Your task to perform on an android device: change your default location settings in chrome Image 0: 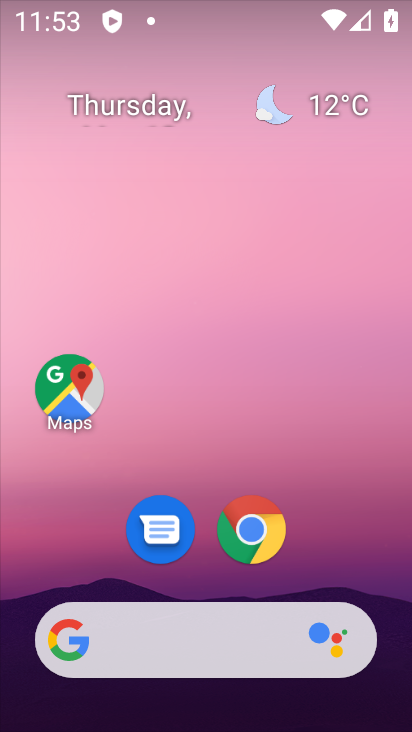
Step 0: drag from (320, 554) to (337, 215)
Your task to perform on an android device: change your default location settings in chrome Image 1: 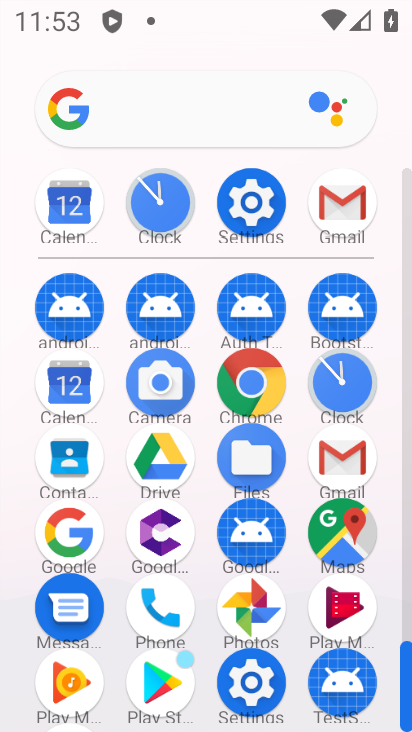
Step 1: click (236, 373)
Your task to perform on an android device: change your default location settings in chrome Image 2: 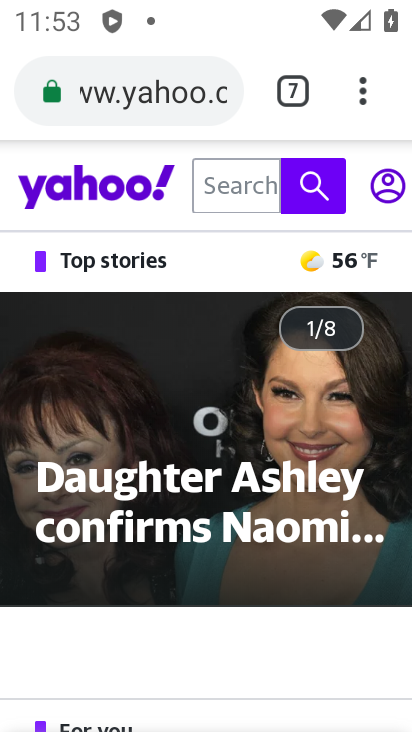
Step 2: click (351, 69)
Your task to perform on an android device: change your default location settings in chrome Image 3: 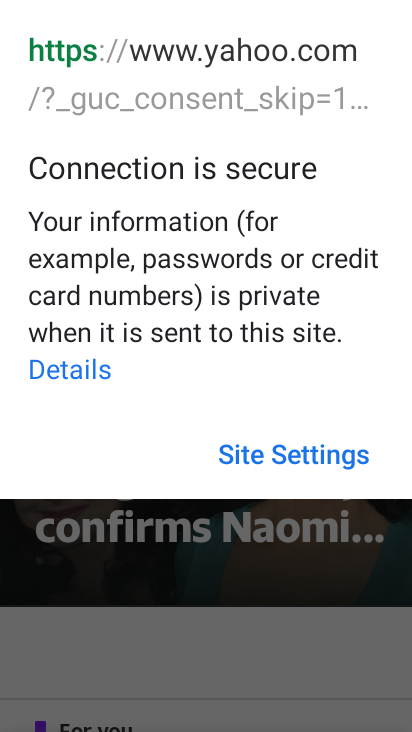
Step 3: press back button
Your task to perform on an android device: change your default location settings in chrome Image 4: 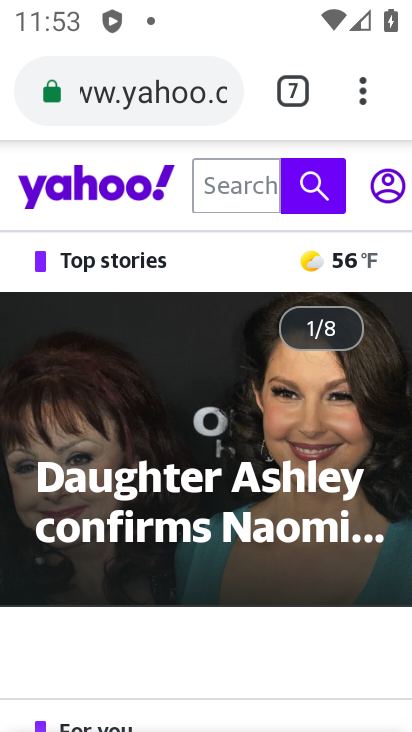
Step 4: click (336, 91)
Your task to perform on an android device: change your default location settings in chrome Image 5: 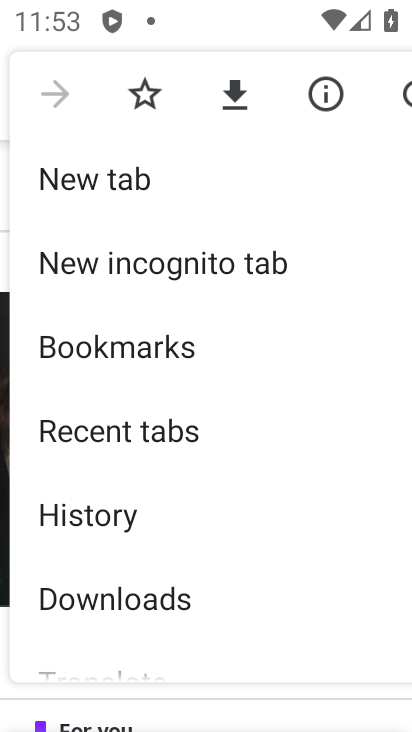
Step 5: drag from (220, 596) to (315, 223)
Your task to perform on an android device: change your default location settings in chrome Image 6: 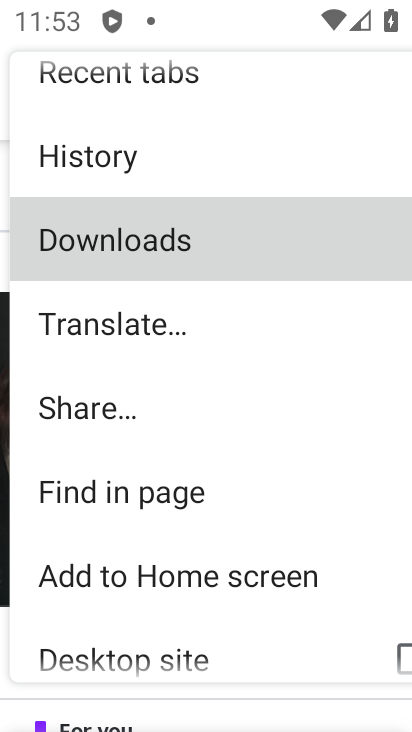
Step 6: drag from (230, 430) to (275, 153)
Your task to perform on an android device: change your default location settings in chrome Image 7: 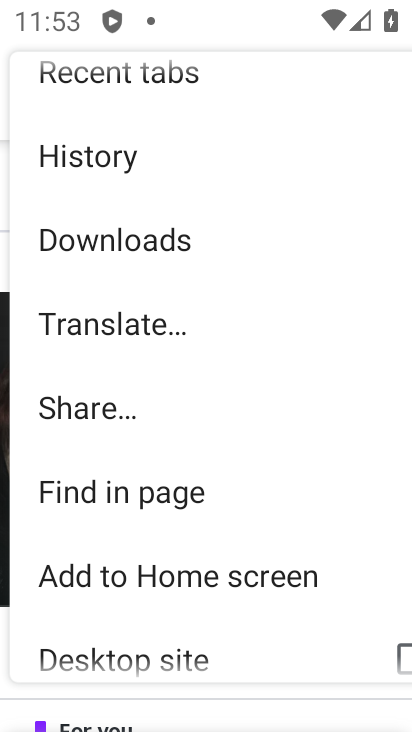
Step 7: drag from (280, 492) to (314, 83)
Your task to perform on an android device: change your default location settings in chrome Image 8: 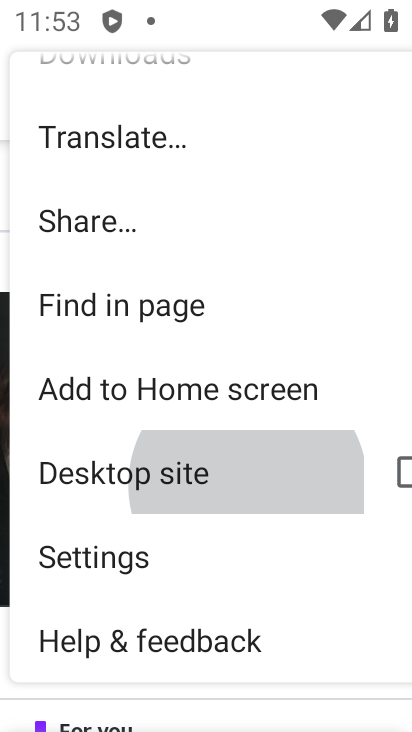
Step 8: drag from (208, 468) to (240, 243)
Your task to perform on an android device: change your default location settings in chrome Image 9: 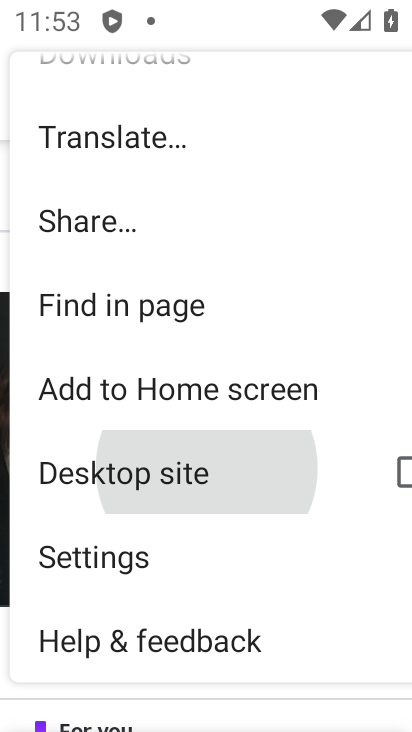
Step 9: drag from (181, 547) to (219, 251)
Your task to perform on an android device: change your default location settings in chrome Image 10: 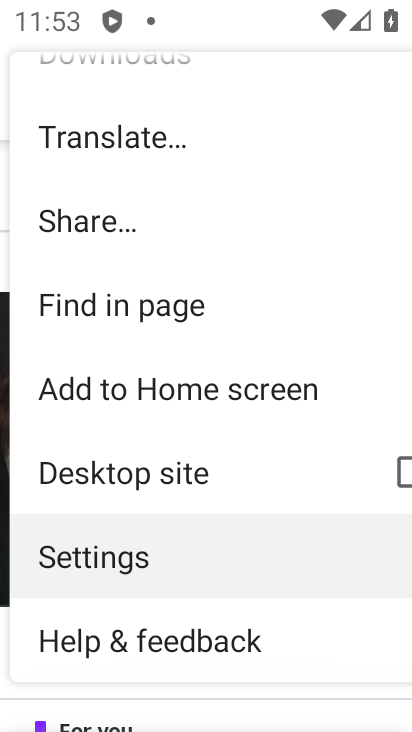
Step 10: click (151, 559)
Your task to perform on an android device: change your default location settings in chrome Image 11: 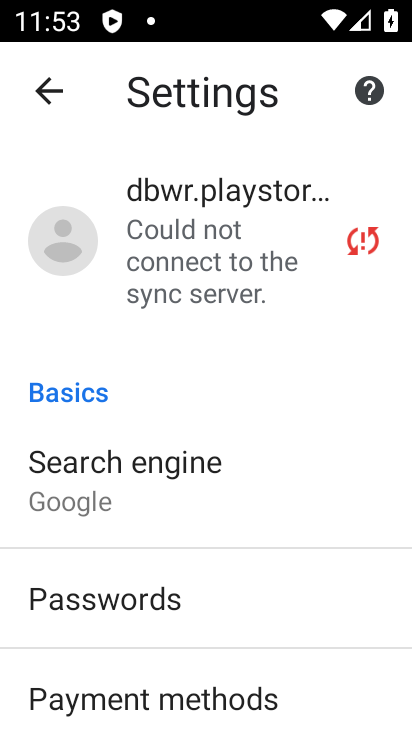
Step 11: drag from (224, 652) to (296, 238)
Your task to perform on an android device: change your default location settings in chrome Image 12: 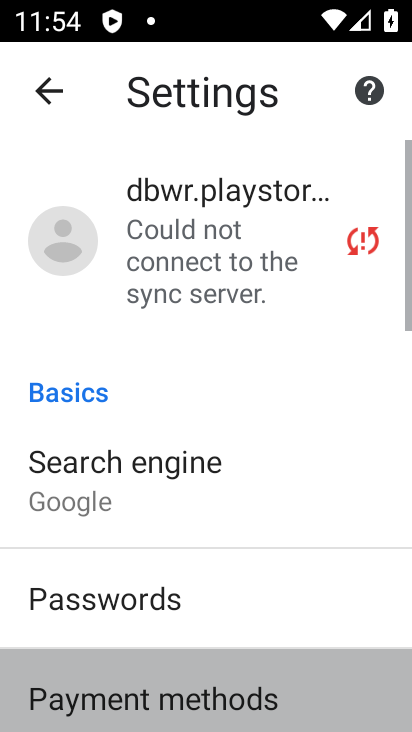
Step 12: drag from (266, 611) to (267, 354)
Your task to perform on an android device: change your default location settings in chrome Image 13: 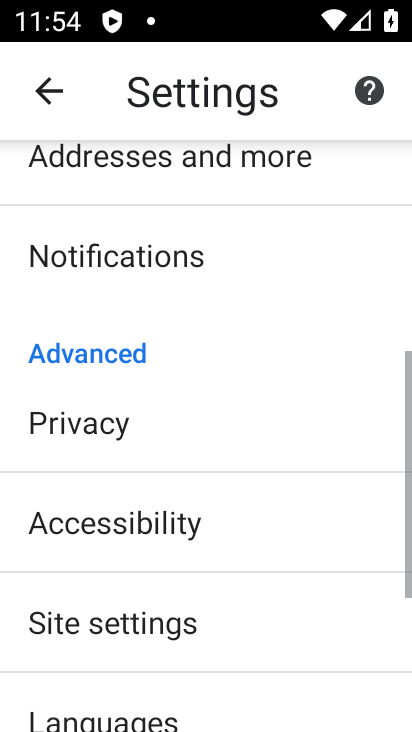
Step 13: drag from (253, 531) to (282, 203)
Your task to perform on an android device: change your default location settings in chrome Image 14: 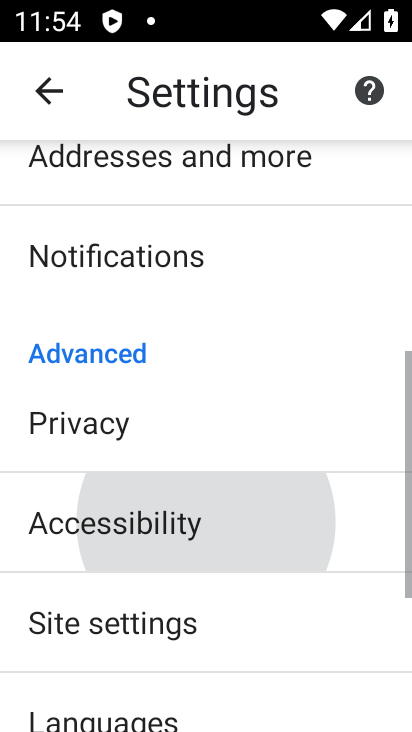
Step 14: drag from (220, 487) to (275, 227)
Your task to perform on an android device: change your default location settings in chrome Image 15: 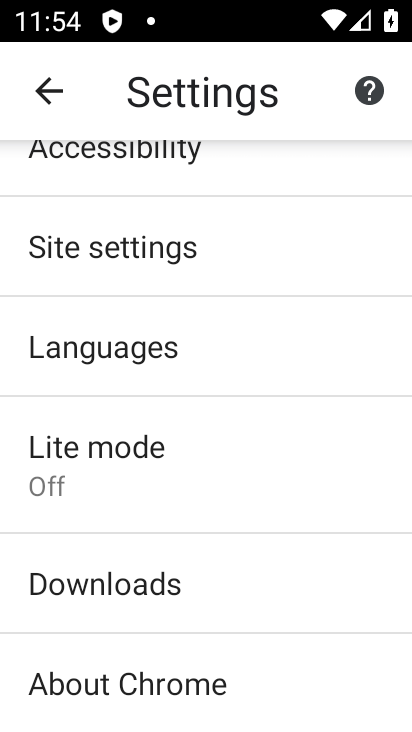
Step 15: click (147, 244)
Your task to perform on an android device: change your default location settings in chrome Image 16: 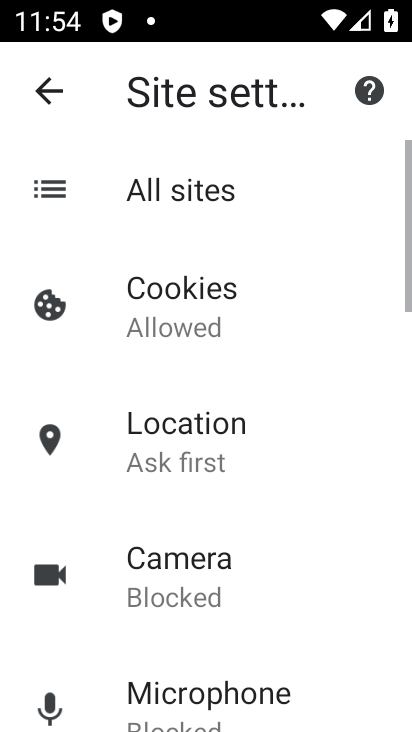
Step 16: click (163, 451)
Your task to perform on an android device: change your default location settings in chrome Image 17: 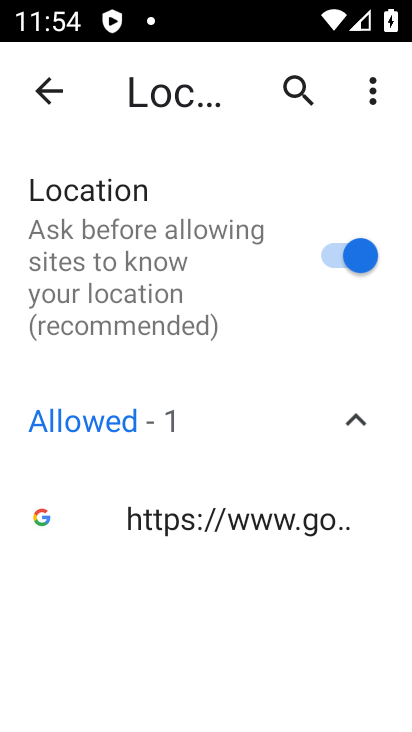
Step 17: click (348, 266)
Your task to perform on an android device: change your default location settings in chrome Image 18: 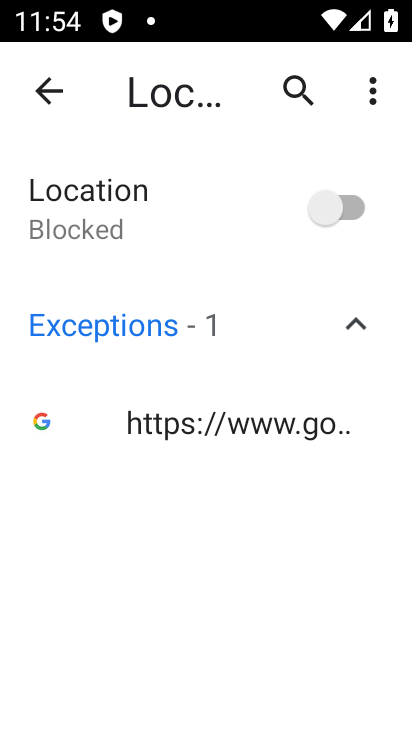
Step 18: task complete